Your task to perform on an android device: Is it going to rain tomorrow? Image 0: 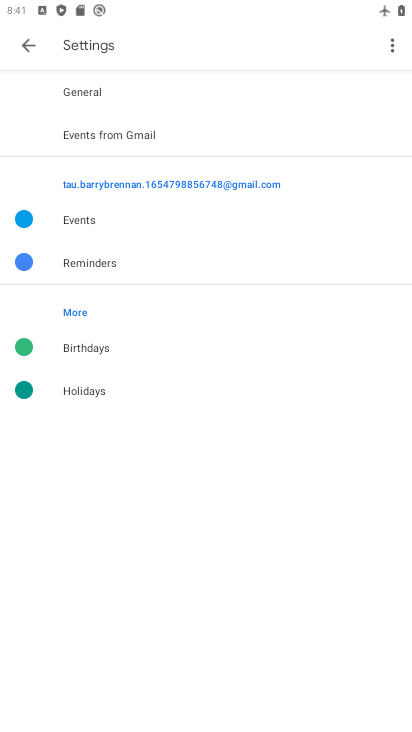
Step 0: press home button
Your task to perform on an android device: Is it going to rain tomorrow? Image 1: 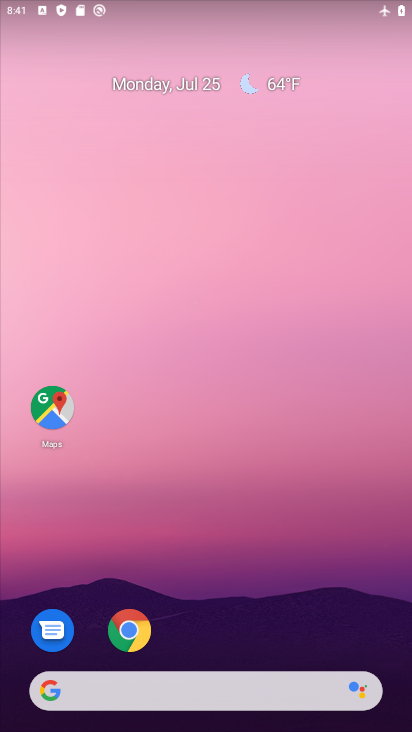
Step 1: click (278, 83)
Your task to perform on an android device: Is it going to rain tomorrow? Image 2: 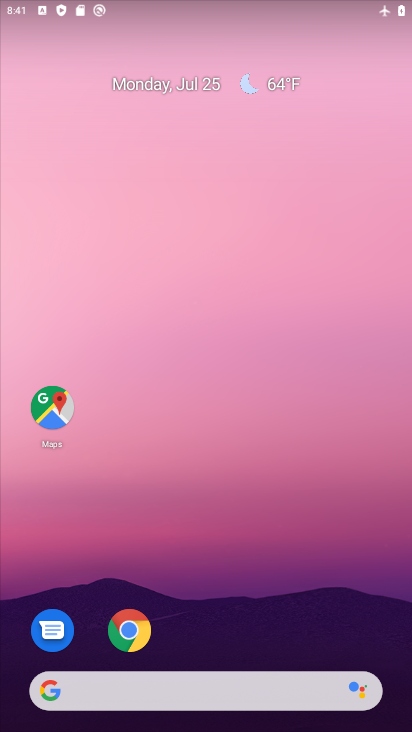
Step 2: click (249, 83)
Your task to perform on an android device: Is it going to rain tomorrow? Image 3: 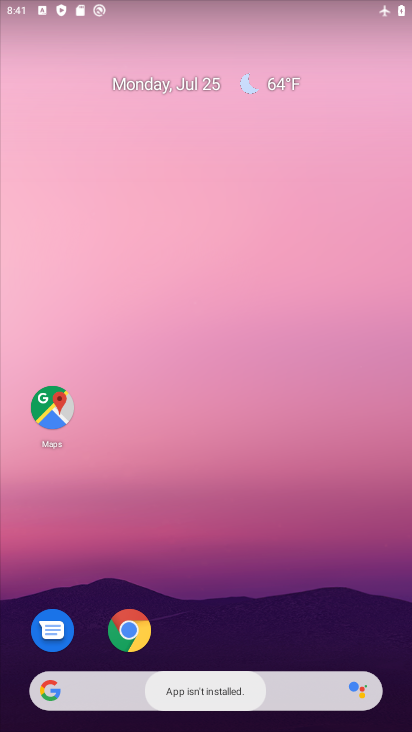
Step 3: click (292, 86)
Your task to perform on an android device: Is it going to rain tomorrow? Image 4: 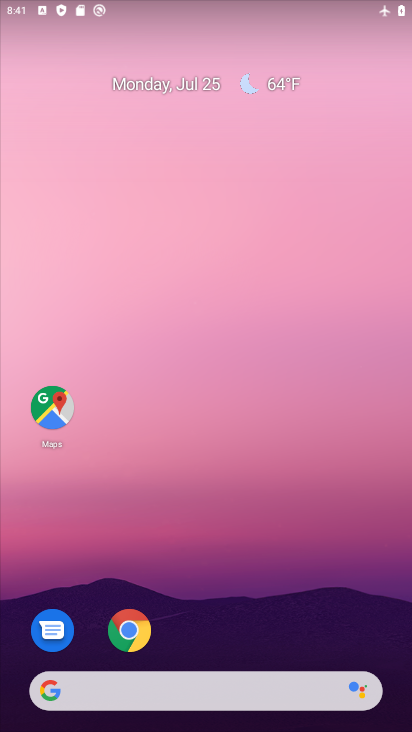
Step 4: drag from (6, 292) to (382, 298)
Your task to perform on an android device: Is it going to rain tomorrow? Image 5: 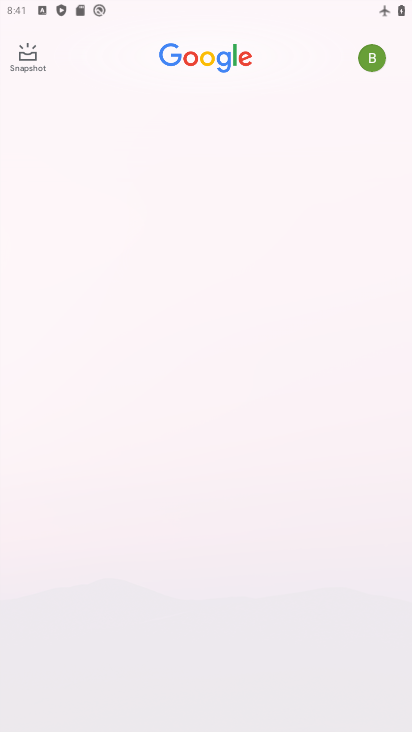
Step 5: drag from (230, 135) to (224, 352)
Your task to perform on an android device: Is it going to rain tomorrow? Image 6: 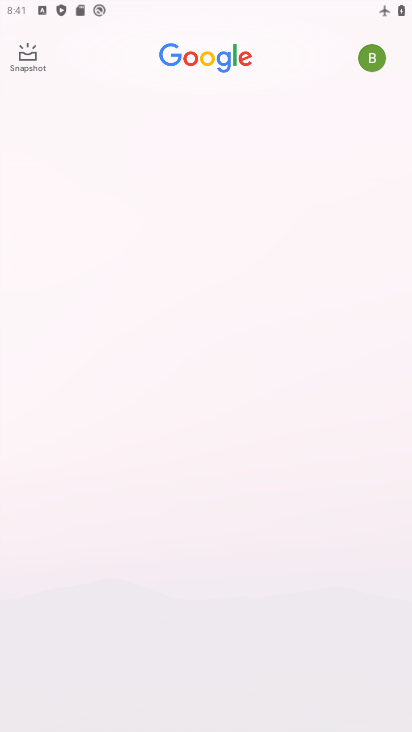
Step 6: drag from (230, 157) to (212, 406)
Your task to perform on an android device: Is it going to rain tomorrow? Image 7: 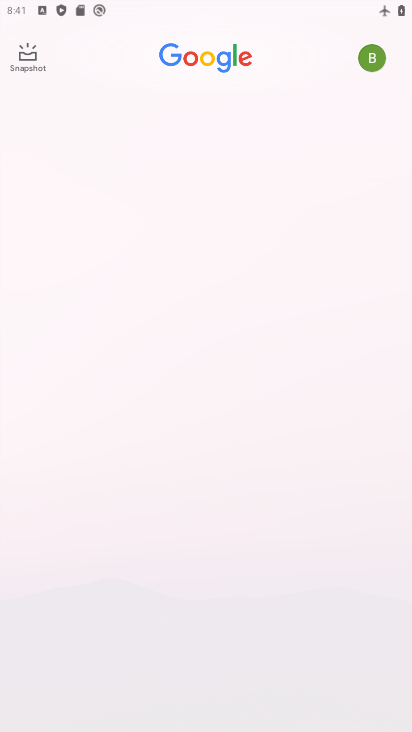
Step 7: drag from (395, 310) to (0, 282)
Your task to perform on an android device: Is it going to rain tomorrow? Image 8: 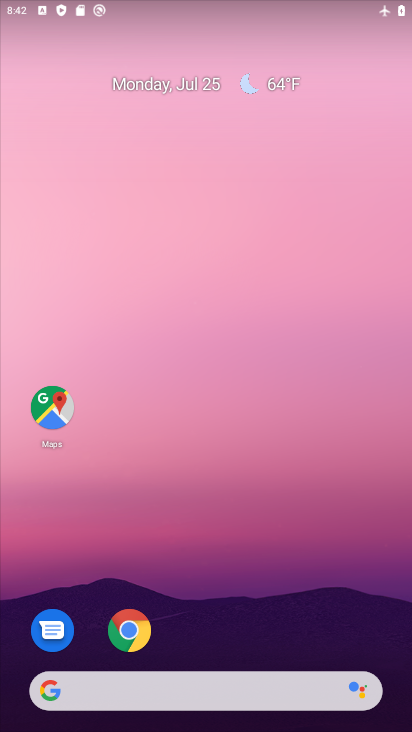
Step 8: click (132, 698)
Your task to perform on an android device: Is it going to rain tomorrow? Image 9: 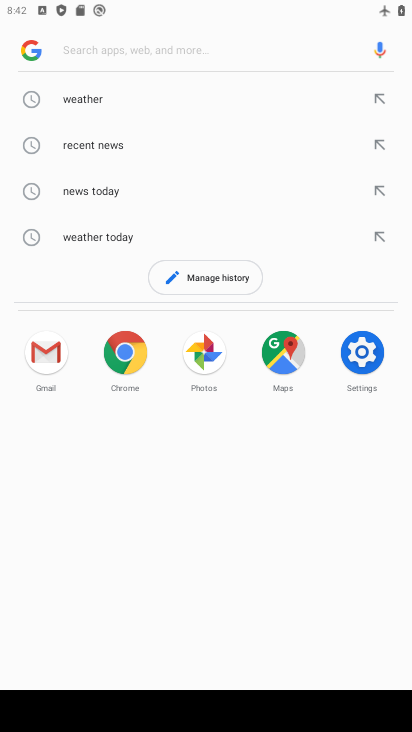
Step 9: click (70, 98)
Your task to perform on an android device: Is it going to rain tomorrow? Image 10: 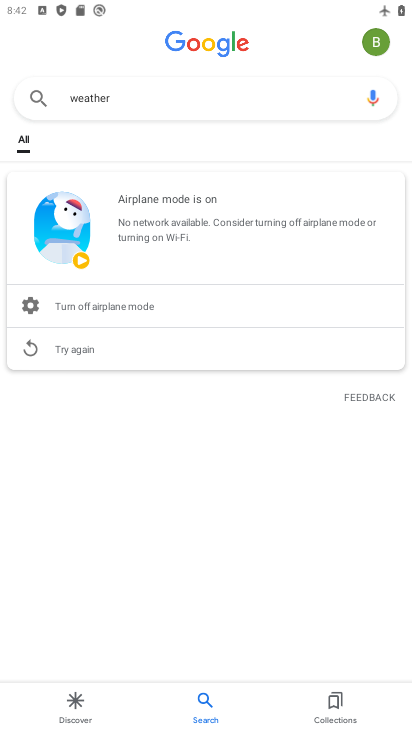
Step 10: click (32, 349)
Your task to perform on an android device: Is it going to rain tomorrow? Image 11: 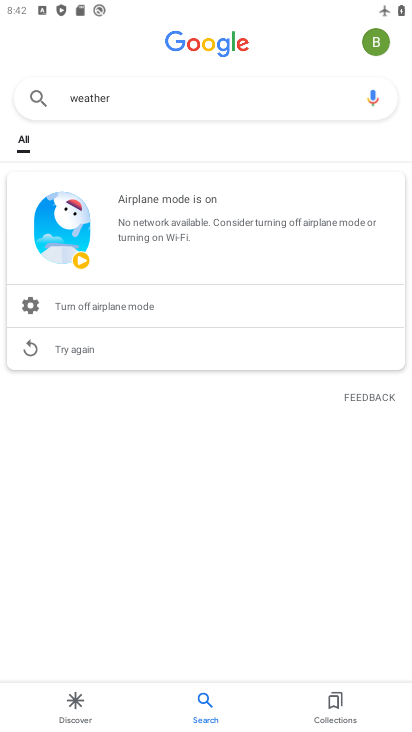
Step 11: task complete